Your task to perform on an android device: Go to accessibility settings Image 0: 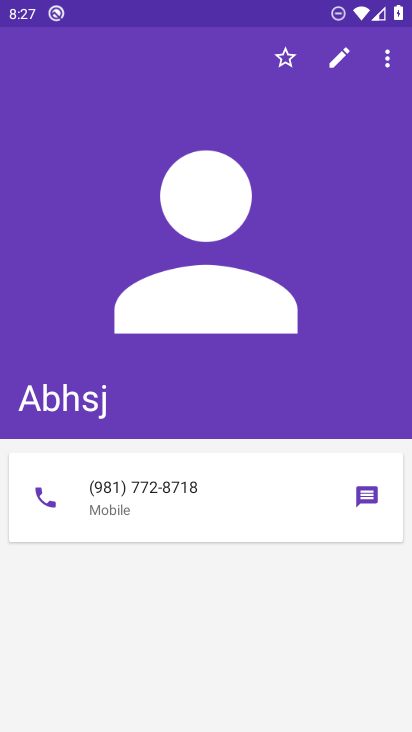
Step 0: press home button
Your task to perform on an android device: Go to accessibility settings Image 1: 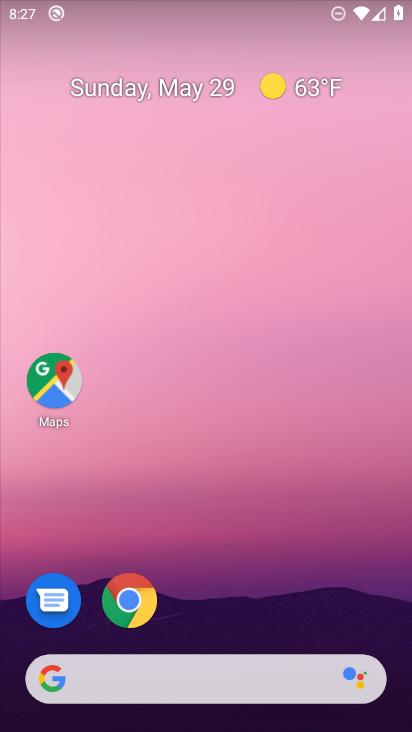
Step 1: drag from (123, 724) to (108, 14)
Your task to perform on an android device: Go to accessibility settings Image 2: 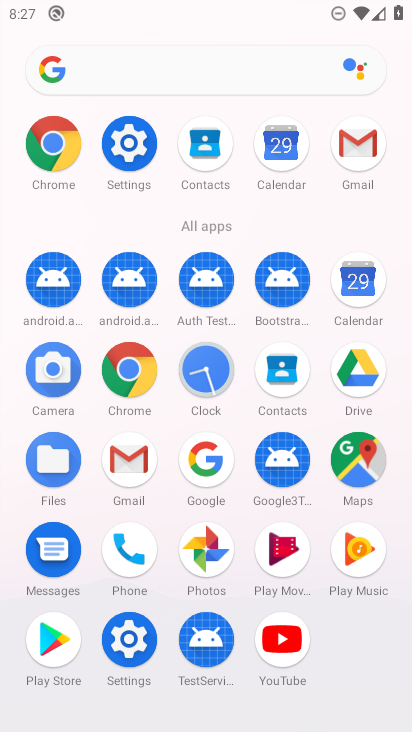
Step 2: click (124, 132)
Your task to perform on an android device: Go to accessibility settings Image 3: 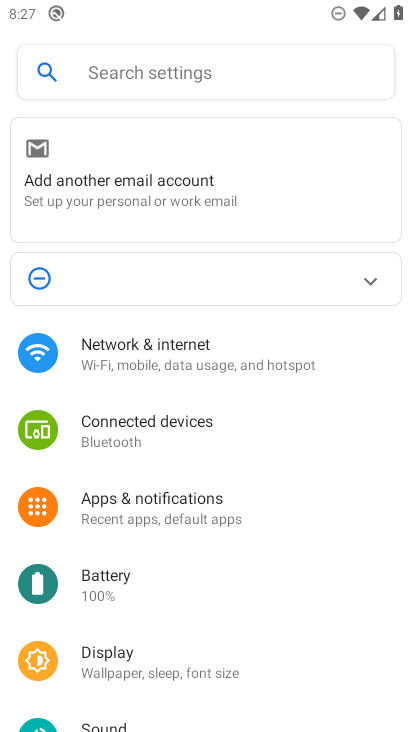
Step 3: drag from (258, 707) to (268, 129)
Your task to perform on an android device: Go to accessibility settings Image 4: 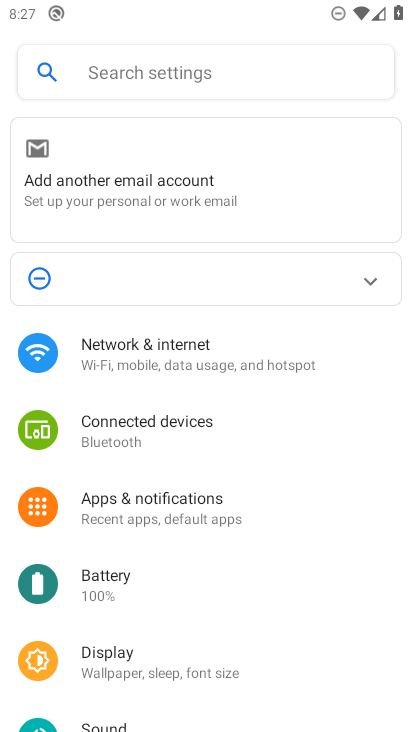
Step 4: drag from (228, 705) to (248, 277)
Your task to perform on an android device: Go to accessibility settings Image 5: 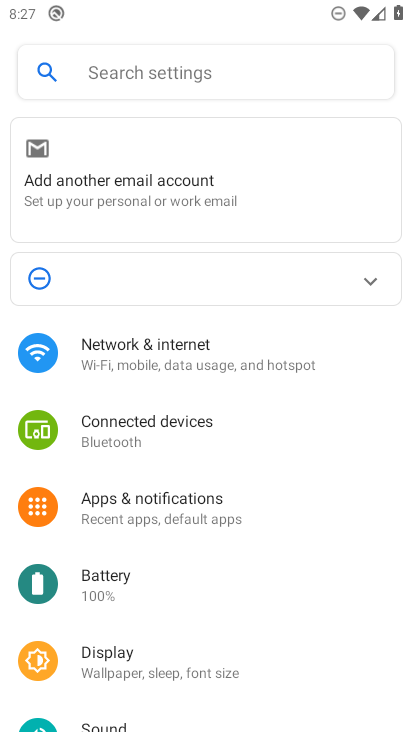
Step 5: drag from (267, 692) to (284, 329)
Your task to perform on an android device: Go to accessibility settings Image 6: 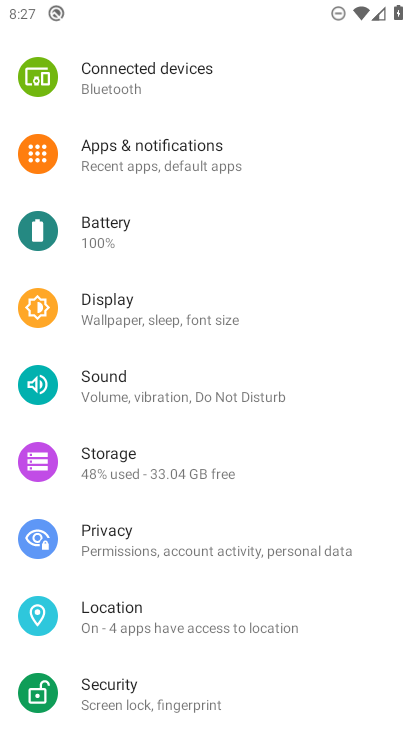
Step 6: drag from (283, 692) to (285, 175)
Your task to perform on an android device: Go to accessibility settings Image 7: 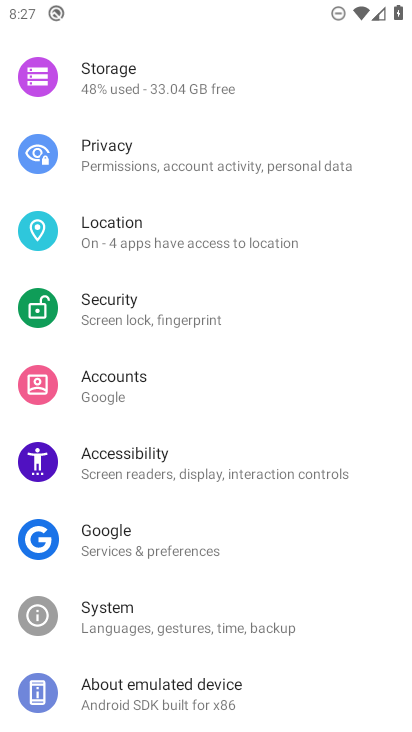
Step 7: click (139, 473)
Your task to perform on an android device: Go to accessibility settings Image 8: 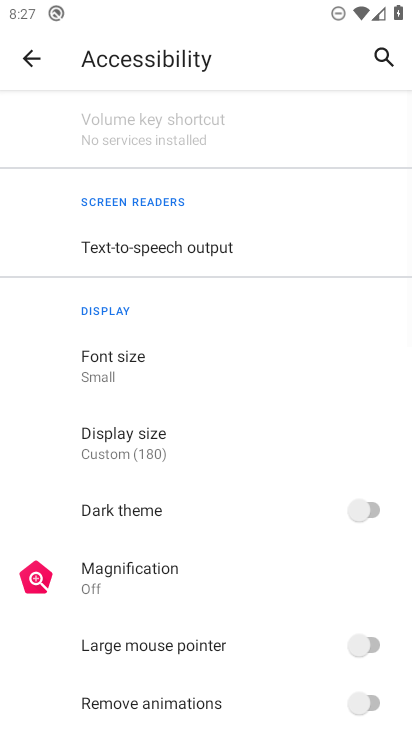
Step 8: task complete